Your task to perform on an android device: open sync settings in chrome Image 0: 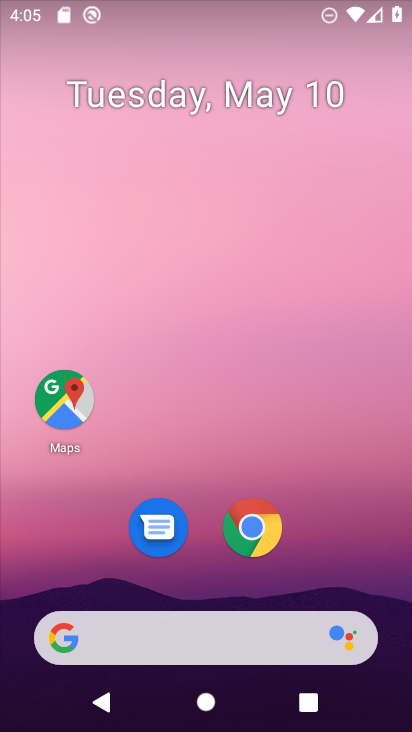
Step 0: click (255, 516)
Your task to perform on an android device: open sync settings in chrome Image 1: 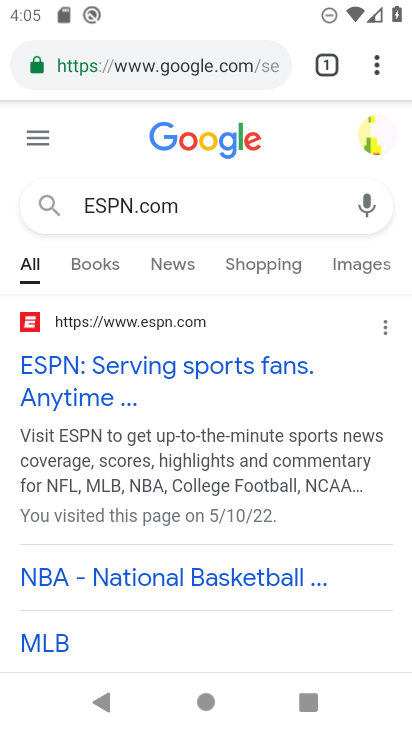
Step 1: click (376, 64)
Your task to perform on an android device: open sync settings in chrome Image 2: 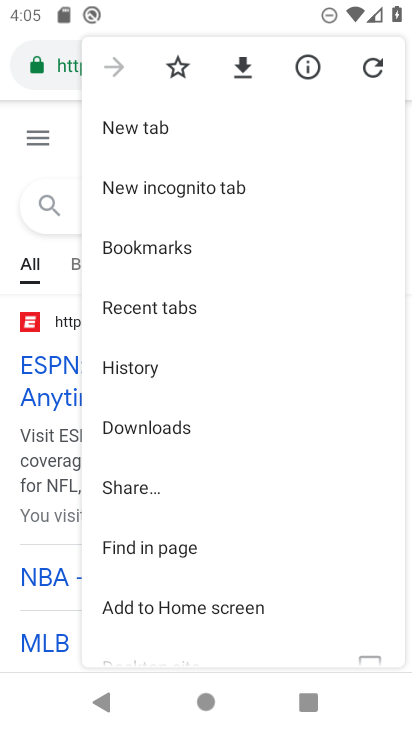
Step 2: drag from (284, 569) to (281, 361)
Your task to perform on an android device: open sync settings in chrome Image 3: 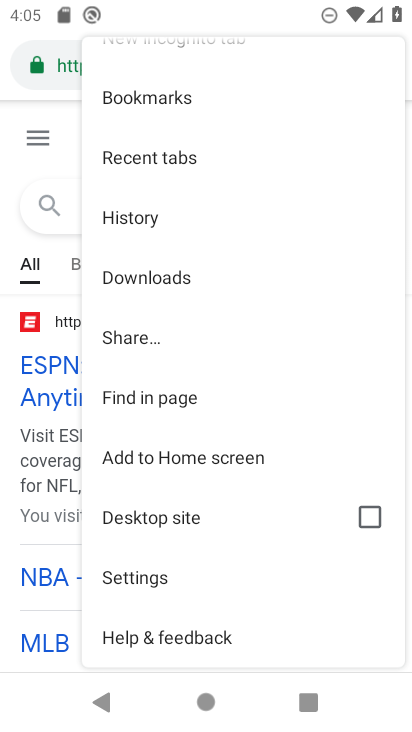
Step 3: click (147, 580)
Your task to perform on an android device: open sync settings in chrome Image 4: 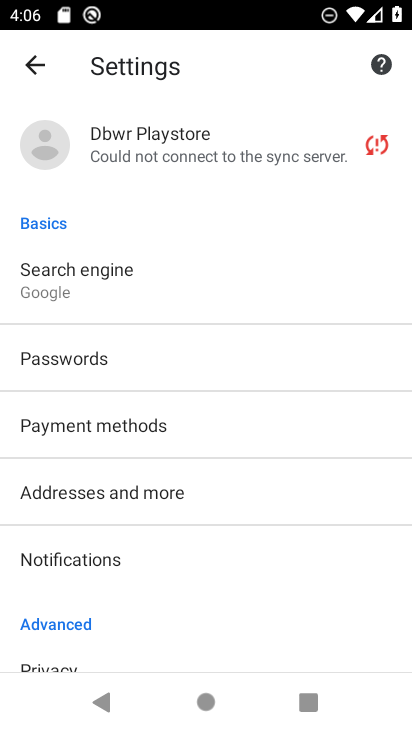
Step 4: drag from (234, 612) to (256, 335)
Your task to perform on an android device: open sync settings in chrome Image 5: 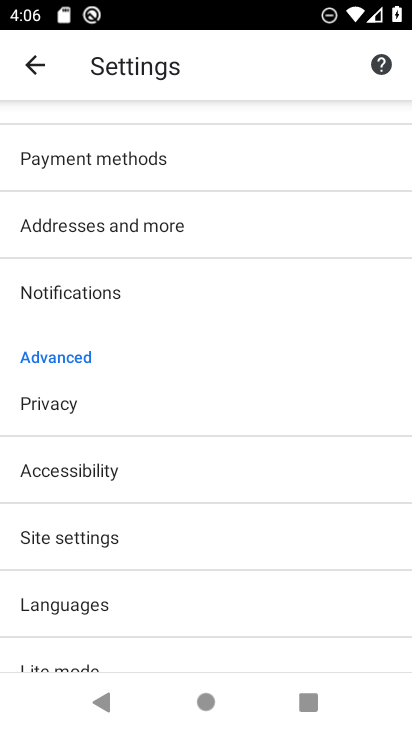
Step 5: click (63, 531)
Your task to perform on an android device: open sync settings in chrome Image 6: 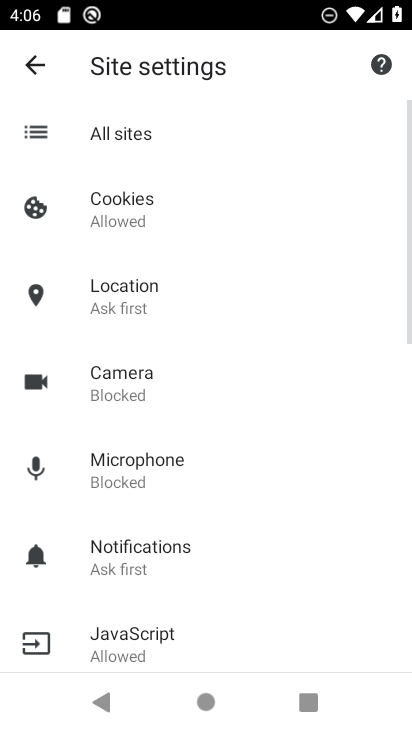
Step 6: drag from (283, 609) to (263, 354)
Your task to perform on an android device: open sync settings in chrome Image 7: 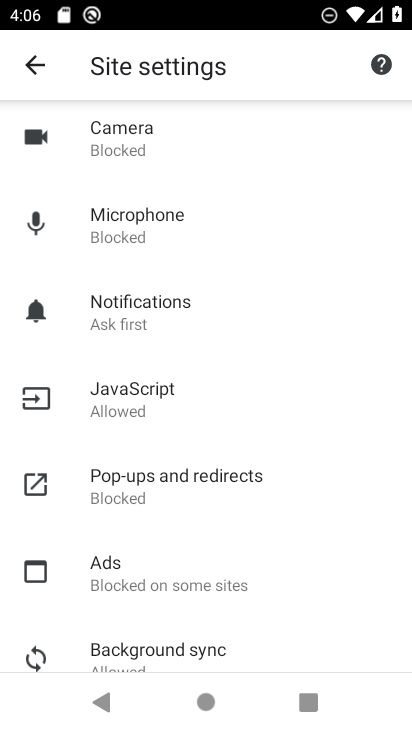
Step 7: drag from (296, 577) to (286, 394)
Your task to perform on an android device: open sync settings in chrome Image 8: 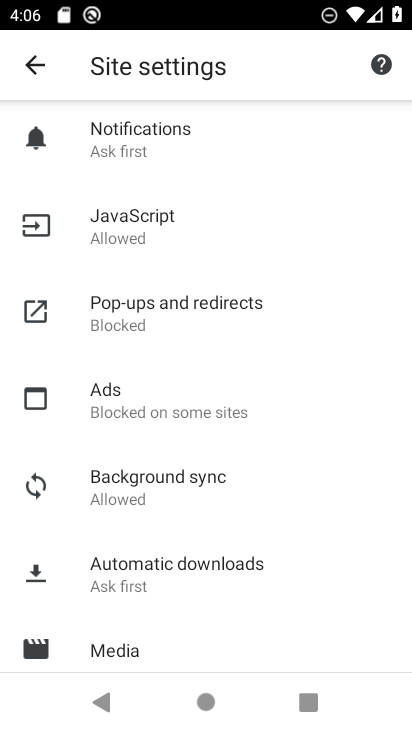
Step 8: click (104, 467)
Your task to perform on an android device: open sync settings in chrome Image 9: 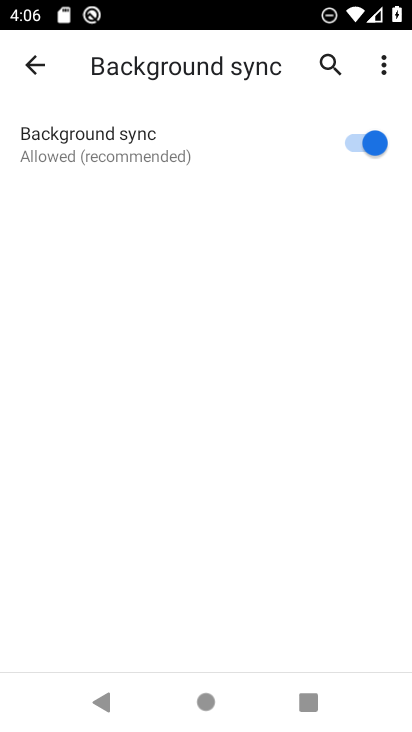
Step 9: task complete